Your task to perform on an android device: Go to location settings Image 0: 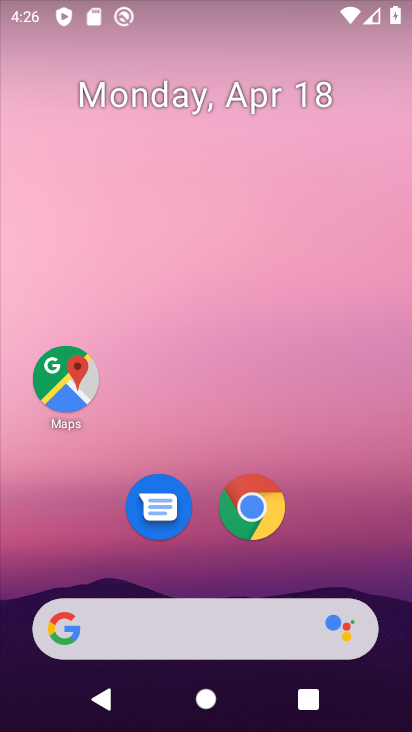
Step 0: drag from (330, 558) to (361, 3)
Your task to perform on an android device: Go to location settings Image 1: 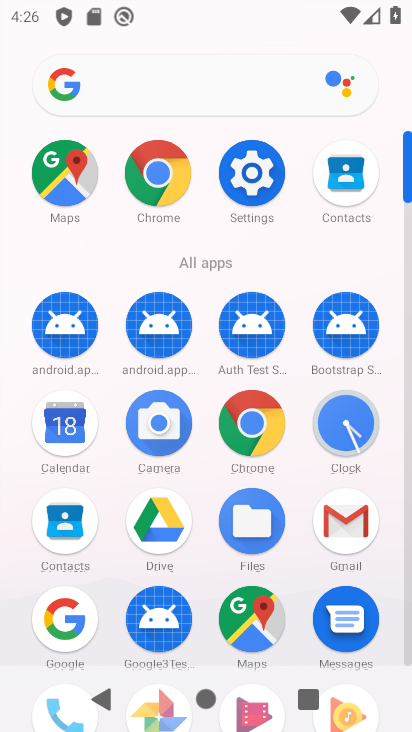
Step 1: click (252, 174)
Your task to perform on an android device: Go to location settings Image 2: 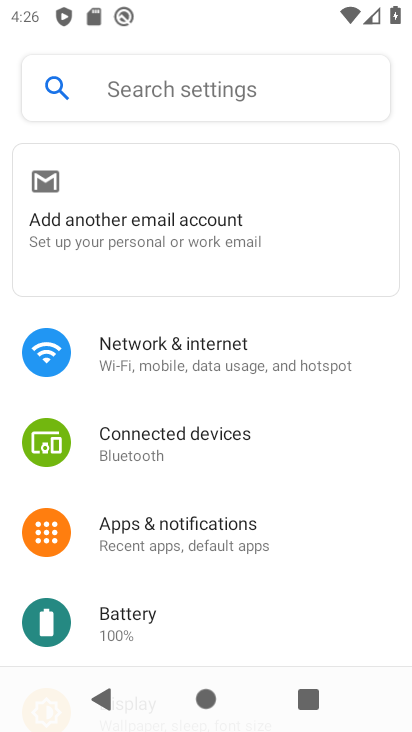
Step 2: drag from (276, 651) to (256, 131)
Your task to perform on an android device: Go to location settings Image 3: 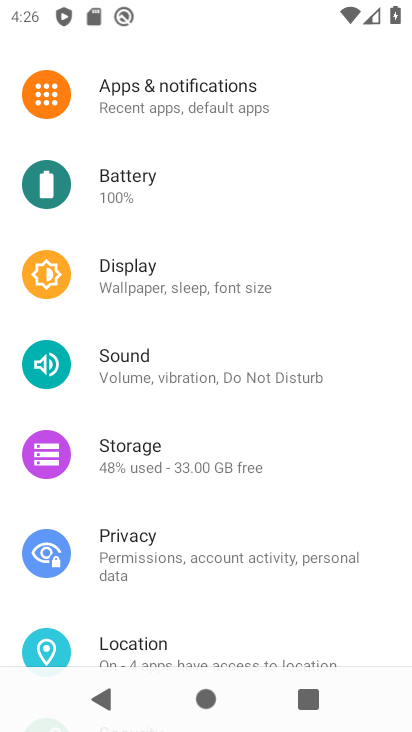
Step 3: click (164, 643)
Your task to perform on an android device: Go to location settings Image 4: 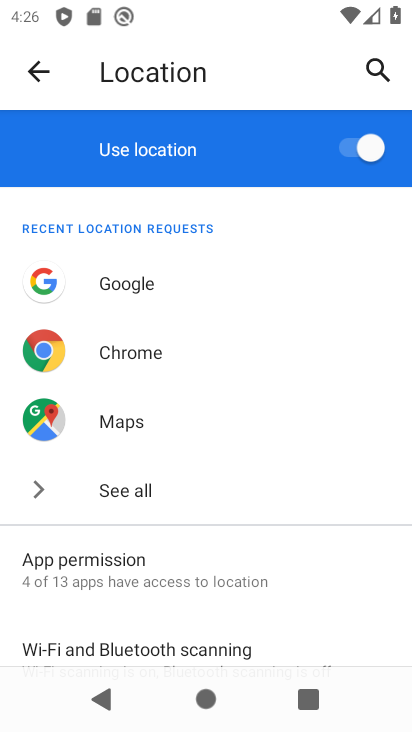
Step 4: task complete